Your task to perform on an android device: Go to privacy settings Image 0: 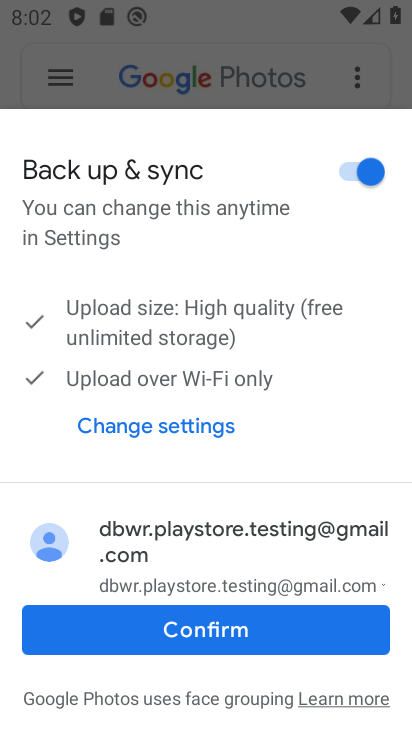
Step 0: press home button
Your task to perform on an android device: Go to privacy settings Image 1: 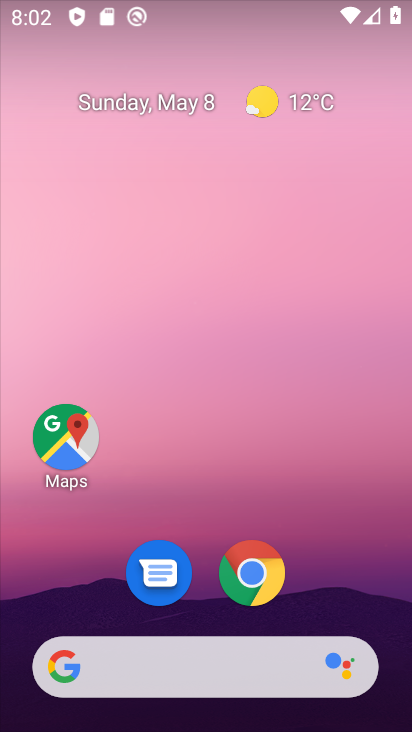
Step 1: drag from (216, 726) to (224, 89)
Your task to perform on an android device: Go to privacy settings Image 2: 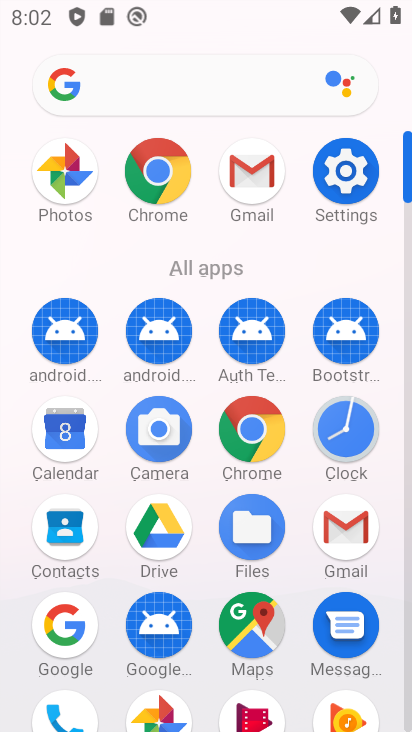
Step 2: click (345, 176)
Your task to perform on an android device: Go to privacy settings Image 3: 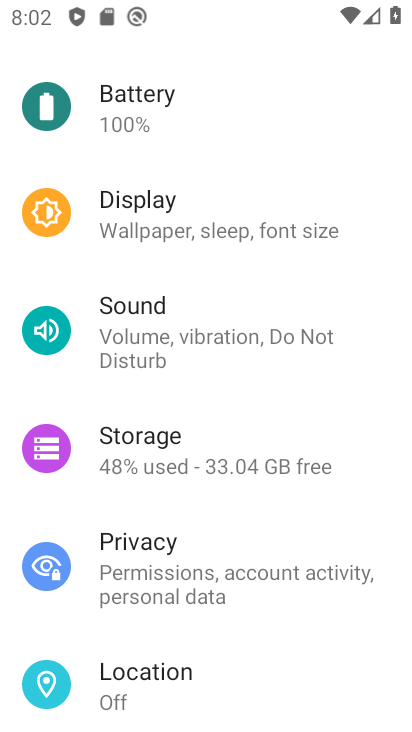
Step 3: click (144, 551)
Your task to perform on an android device: Go to privacy settings Image 4: 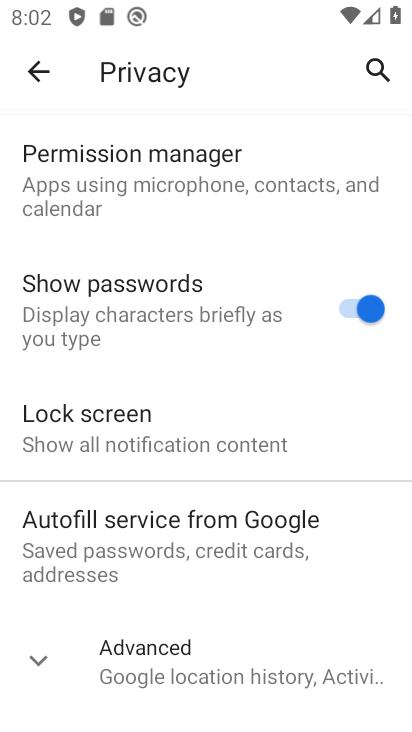
Step 4: task complete